Your task to perform on an android device: Do I have any events today? Image 0: 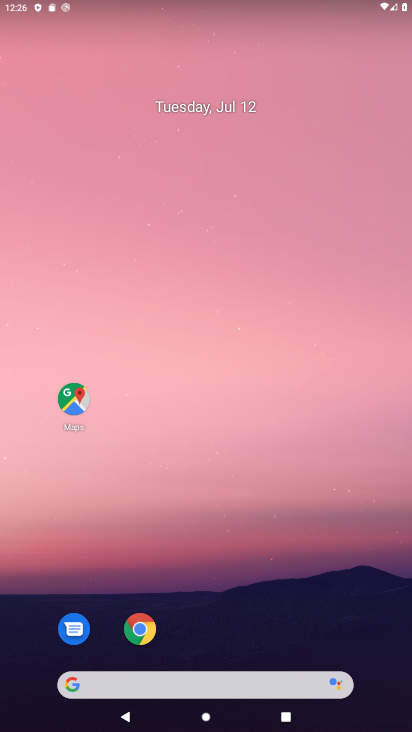
Step 0: drag from (235, 686) to (314, 37)
Your task to perform on an android device: Do I have any events today? Image 1: 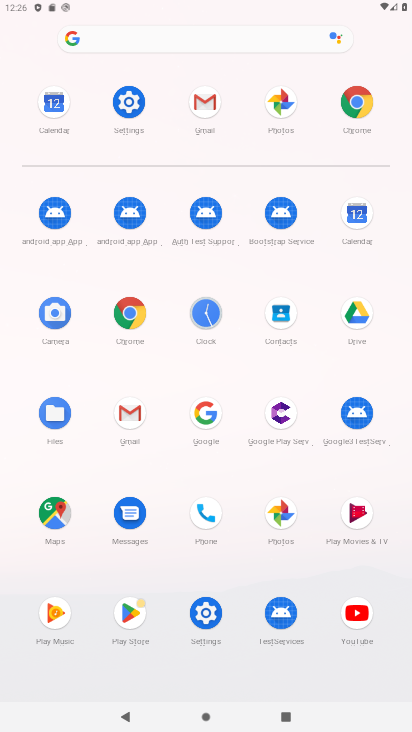
Step 1: click (363, 219)
Your task to perform on an android device: Do I have any events today? Image 2: 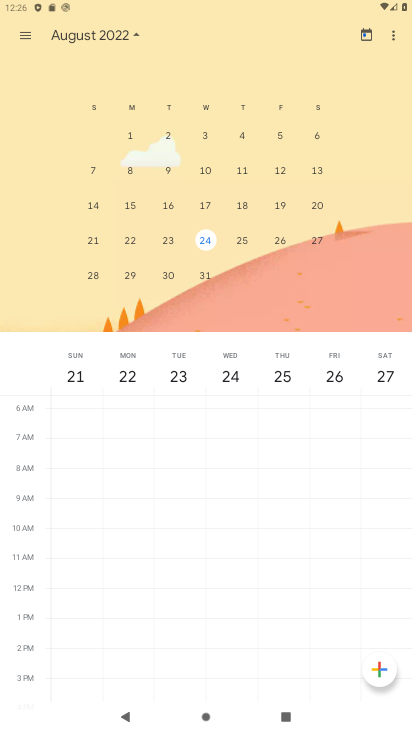
Step 2: drag from (106, 231) to (335, 243)
Your task to perform on an android device: Do I have any events today? Image 3: 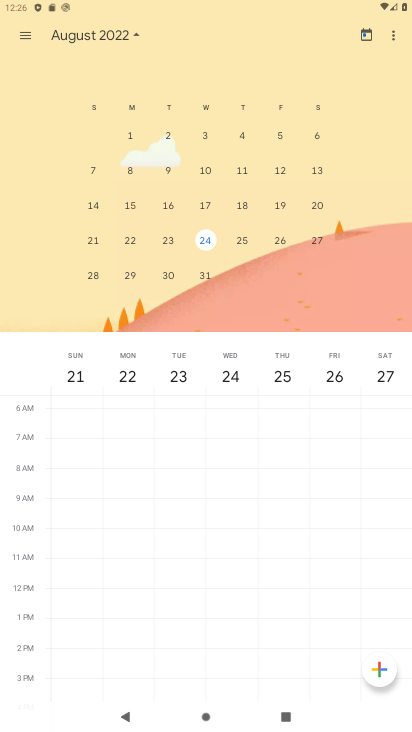
Step 3: drag from (86, 188) to (373, 207)
Your task to perform on an android device: Do I have any events today? Image 4: 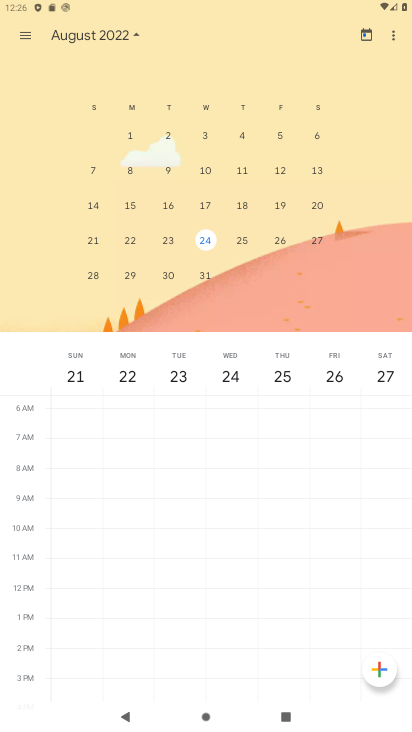
Step 4: drag from (45, 199) to (383, 171)
Your task to perform on an android device: Do I have any events today? Image 5: 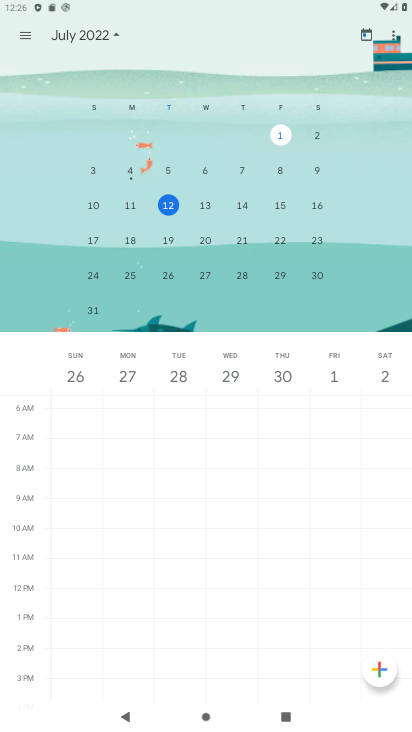
Step 5: click (169, 202)
Your task to perform on an android device: Do I have any events today? Image 6: 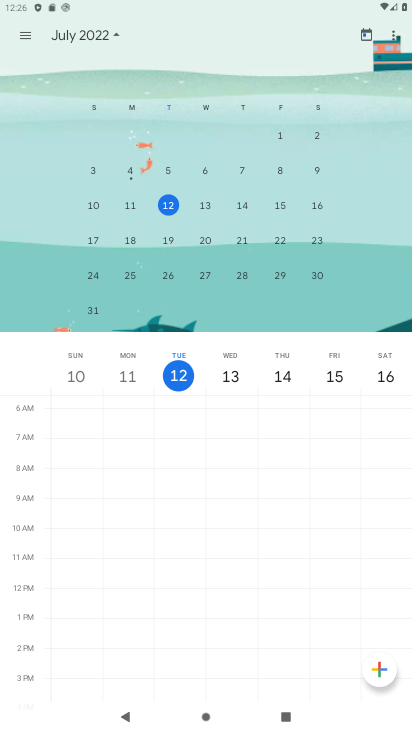
Step 6: task complete